Your task to perform on an android device: check the backup settings in the google photos Image 0: 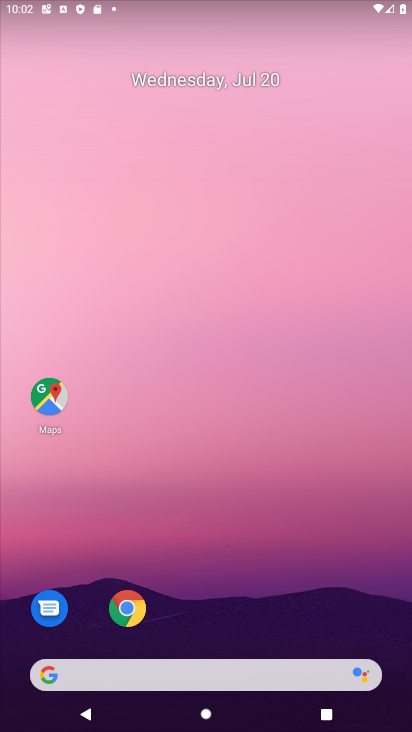
Step 0: drag from (284, 573) to (334, 98)
Your task to perform on an android device: check the backup settings in the google photos Image 1: 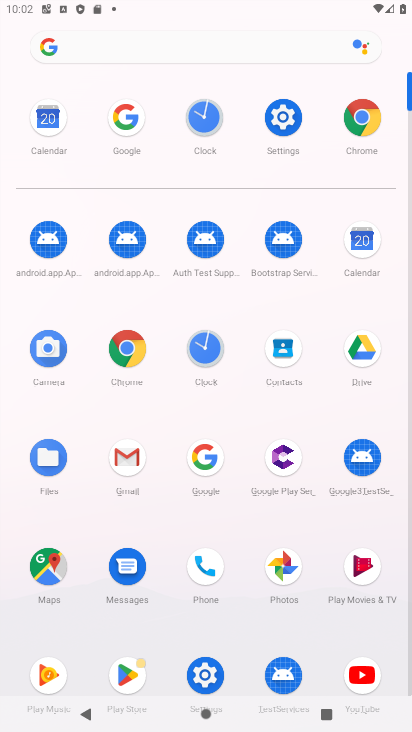
Step 1: click (273, 580)
Your task to perform on an android device: check the backup settings in the google photos Image 2: 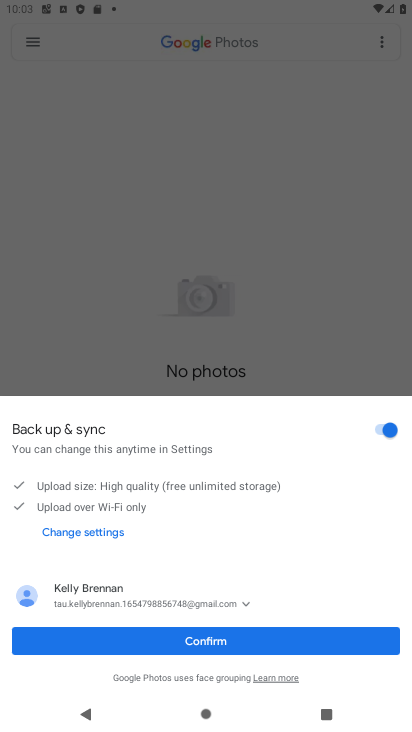
Step 2: click (301, 632)
Your task to perform on an android device: check the backup settings in the google photos Image 3: 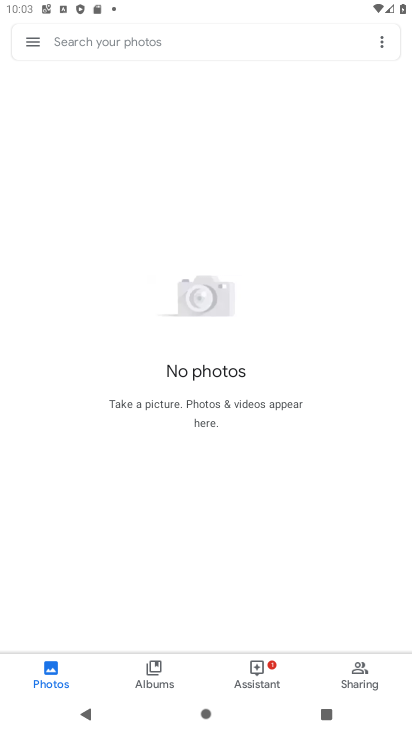
Step 3: click (27, 47)
Your task to perform on an android device: check the backup settings in the google photos Image 4: 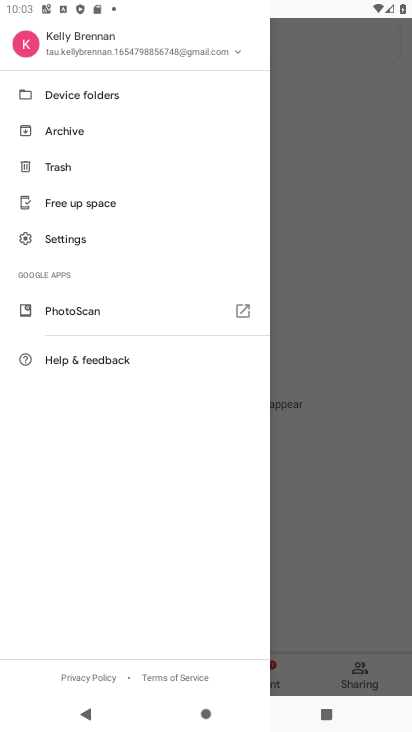
Step 4: click (396, 38)
Your task to perform on an android device: check the backup settings in the google photos Image 5: 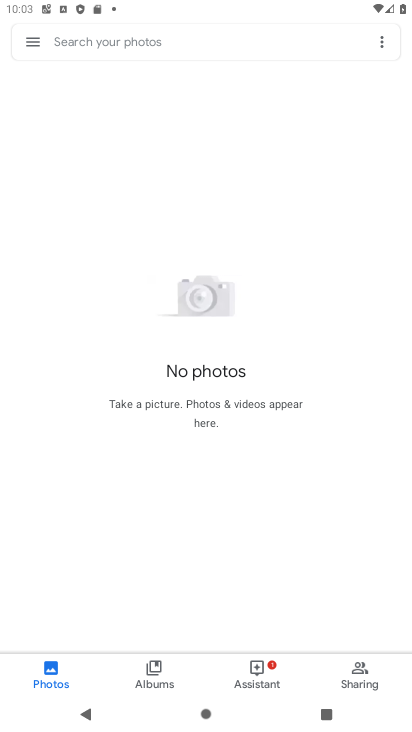
Step 5: click (380, 44)
Your task to perform on an android device: check the backup settings in the google photos Image 6: 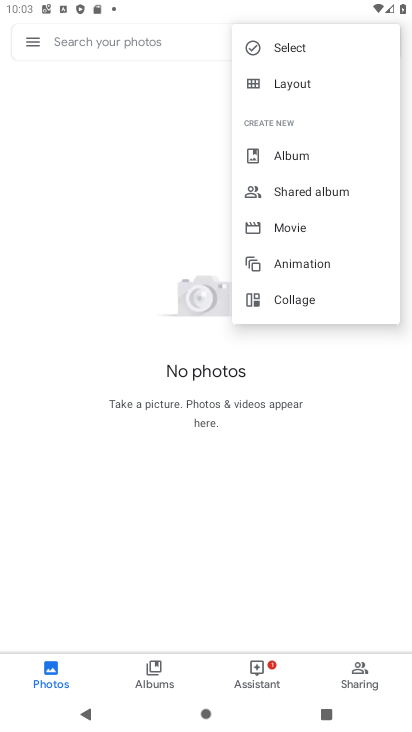
Step 6: click (34, 44)
Your task to perform on an android device: check the backup settings in the google photos Image 7: 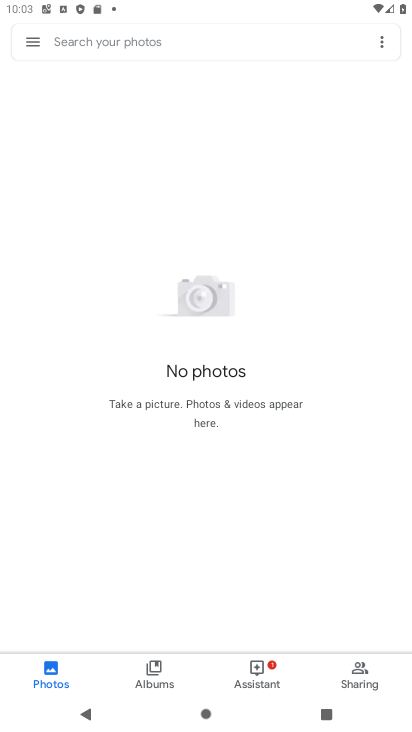
Step 7: click (34, 44)
Your task to perform on an android device: check the backup settings in the google photos Image 8: 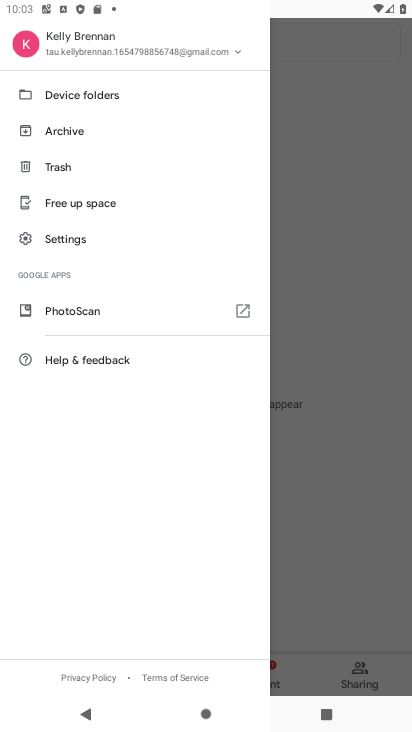
Step 8: click (98, 241)
Your task to perform on an android device: check the backup settings in the google photos Image 9: 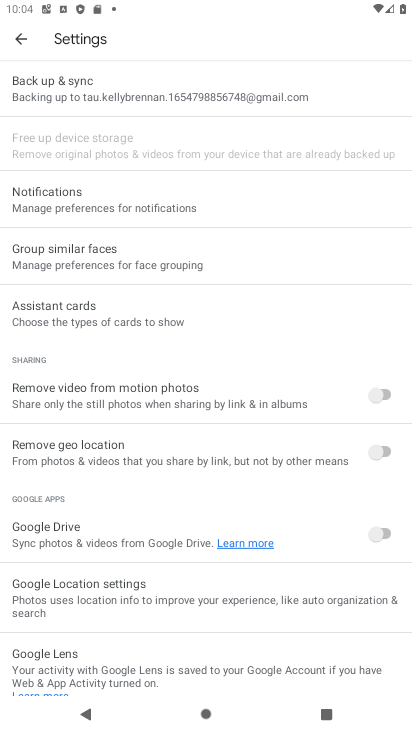
Step 9: click (159, 92)
Your task to perform on an android device: check the backup settings in the google photos Image 10: 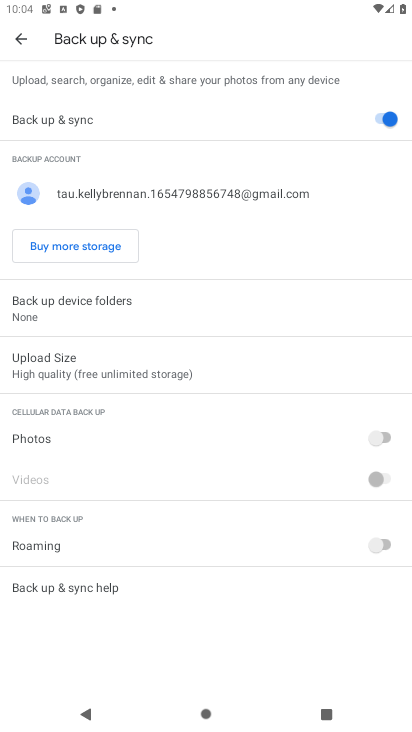
Step 10: task complete